Your task to perform on an android device: Go to Yahoo.com Image 0: 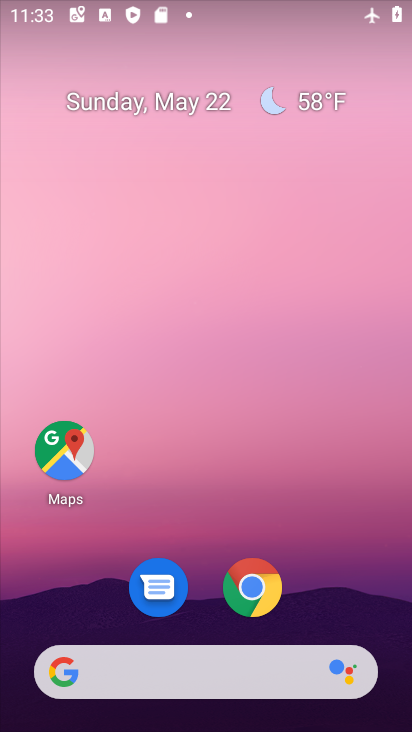
Step 0: click (244, 673)
Your task to perform on an android device: Go to Yahoo.com Image 1: 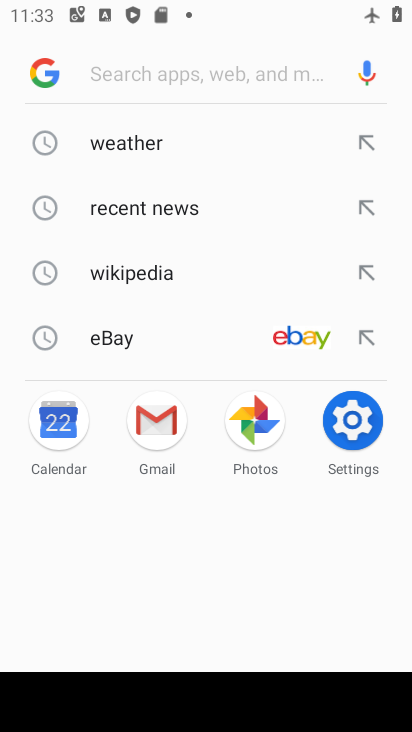
Step 1: type "yahoo.com"
Your task to perform on an android device: Go to Yahoo.com Image 2: 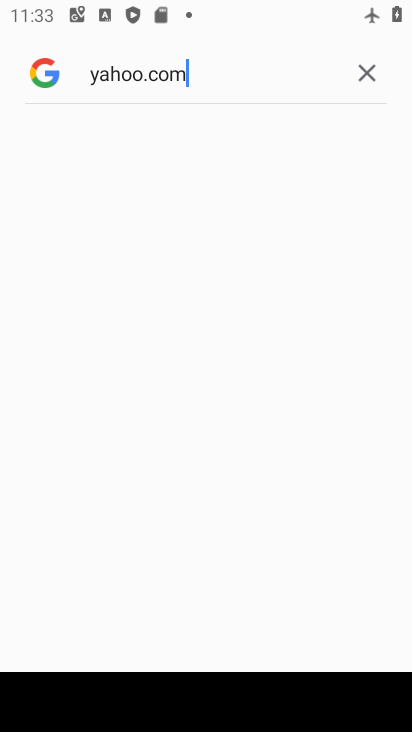
Step 2: task complete